Your task to perform on an android device: Open the web browser Image 0: 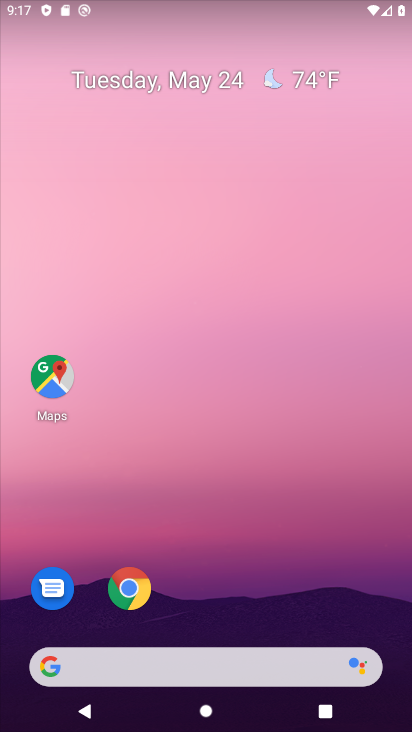
Step 0: click (120, 584)
Your task to perform on an android device: Open the web browser Image 1: 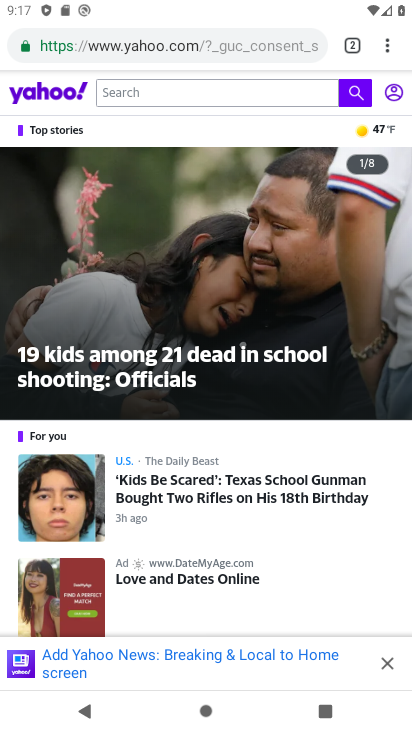
Step 1: task complete